Your task to perform on an android device: check battery use Image 0: 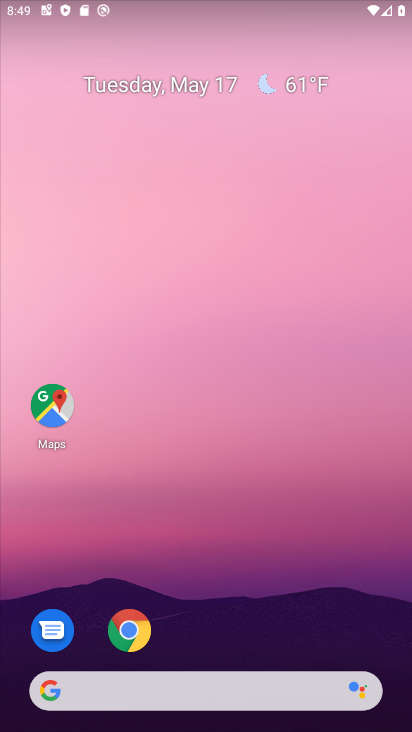
Step 0: drag from (210, 654) to (355, 231)
Your task to perform on an android device: check battery use Image 1: 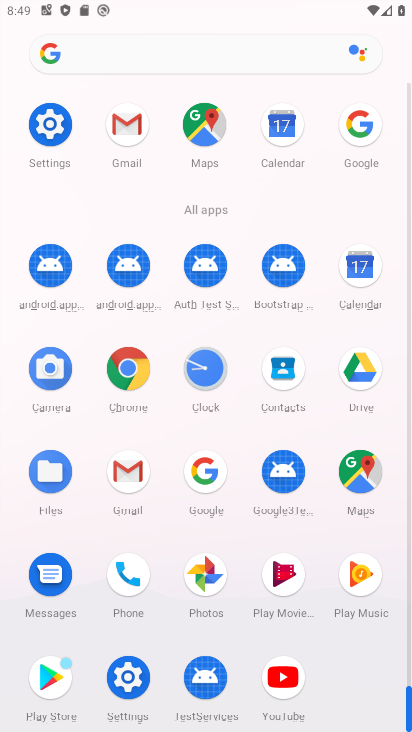
Step 1: click (121, 666)
Your task to perform on an android device: check battery use Image 2: 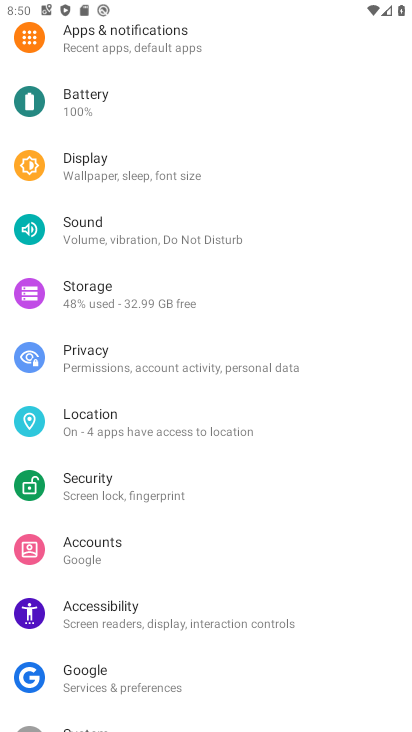
Step 2: drag from (202, 116) to (47, 437)
Your task to perform on an android device: check battery use Image 3: 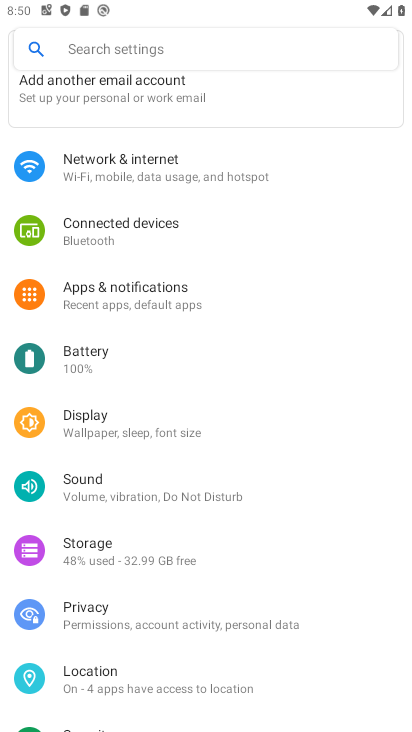
Step 3: click (112, 363)
Your task to perform on an android device: check battery use Image 4: 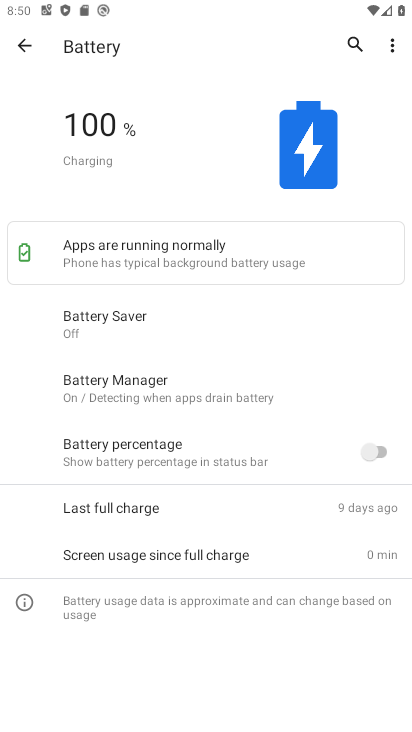
Step 4: click (400, 39)
Your task to perform on an android device: check battery use Image 5: 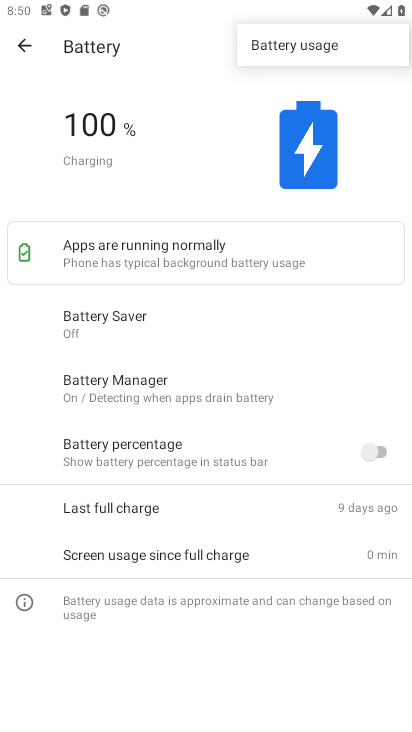
Step 5: click (366, 36)
Your task to perform on an android device: check battery use Image 6: 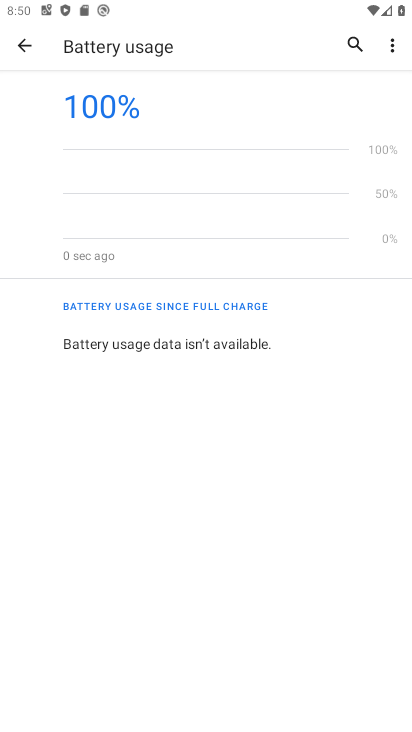
Step 6: task complete